Your task to perform on an android device: turn on translation in the chrome app Image 0: 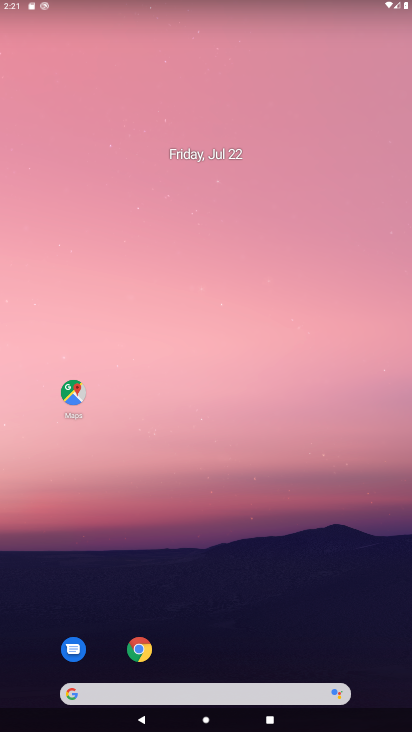
Step 0: click (140, 652)
Your task to perform on an android device: turn on translation in the chrome app Image 1: 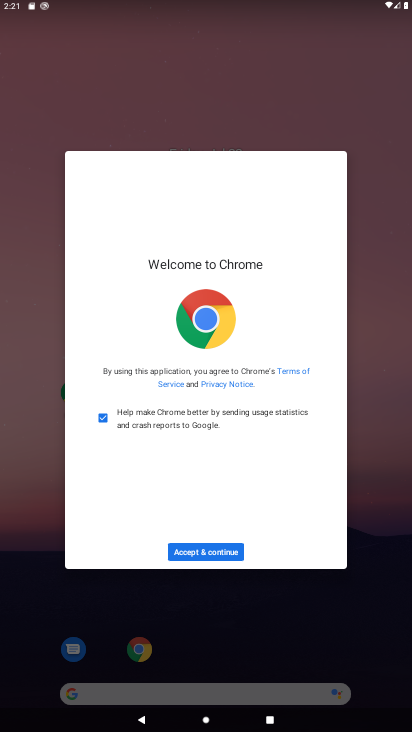
Step 1: click (205, 554)
Your task to perform on an android device: turn on translation in the chrome app Image 2: 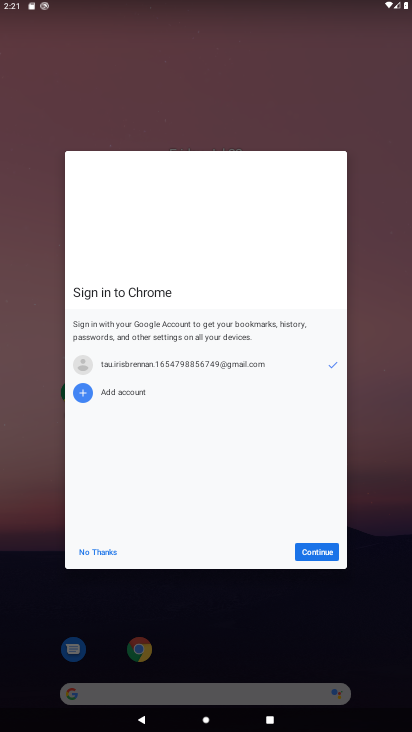
Step 2: click (315, 552)
Your task to perform on an android device: turn on translation in the chrome app Image 3: 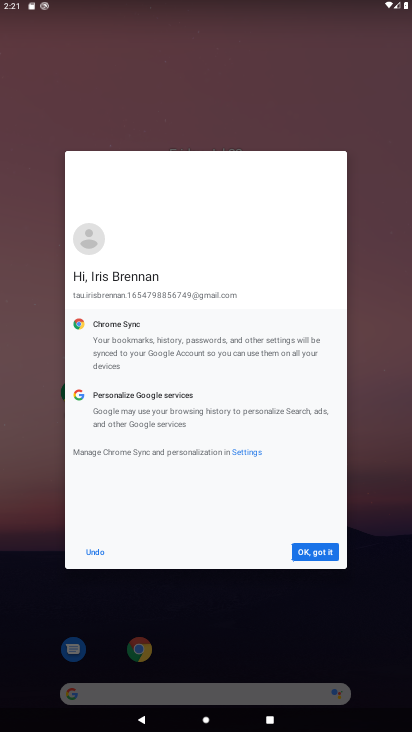
Step 3: click (318, 548)
Your task to perform on an android device: turn on translation in the chrome app Image 4: 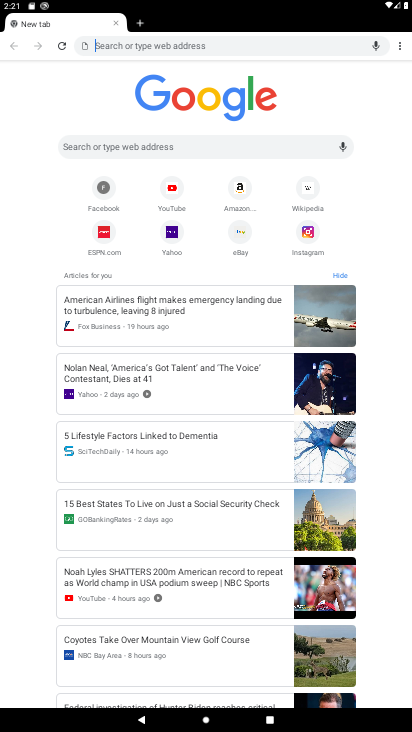
Step 4: click (401, 46)
Your task to perform on an android device: turn on translation in the chrome app Image 5: 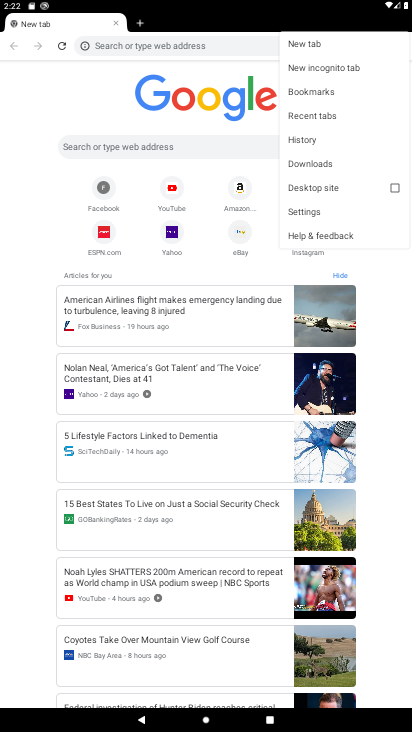
Step 5: click (296, 211)
Your task to perform on an android device: turn on translation in the chrome app Image 6: 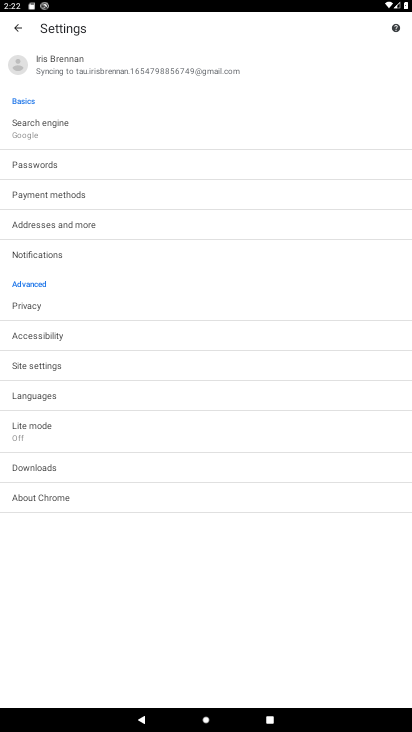
Step 6: click (34, 394)
Your task to perform on an android device: turn on translation in the chrome app Image 7: 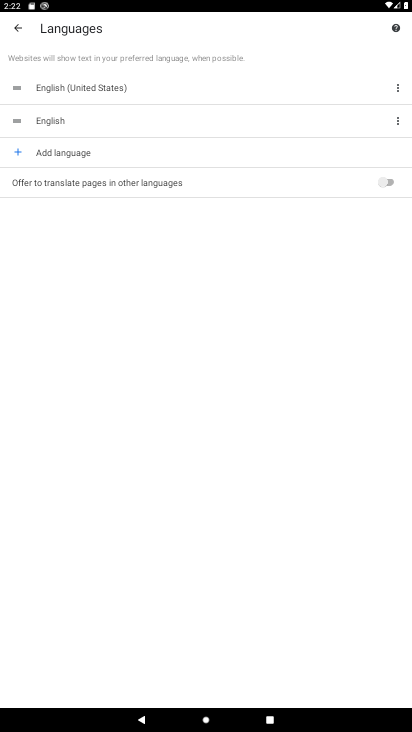
Step 7: click (391, 181)
Your task to perform on an android device: turn on translation in the chrome app Image 8: 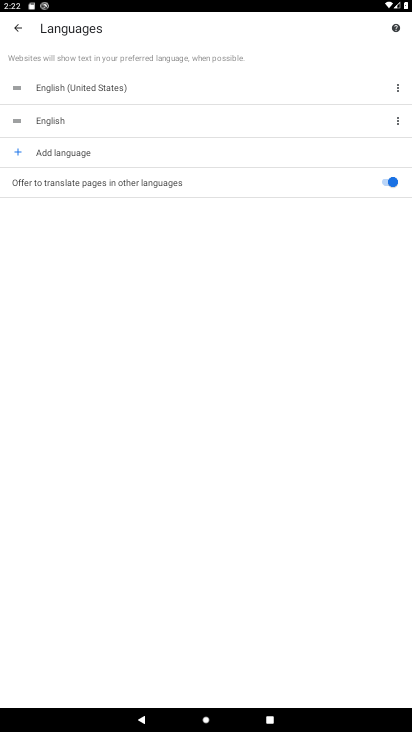
Step 8: task complete